Your task to perform on an android device: toggle airplane mode Image 0: 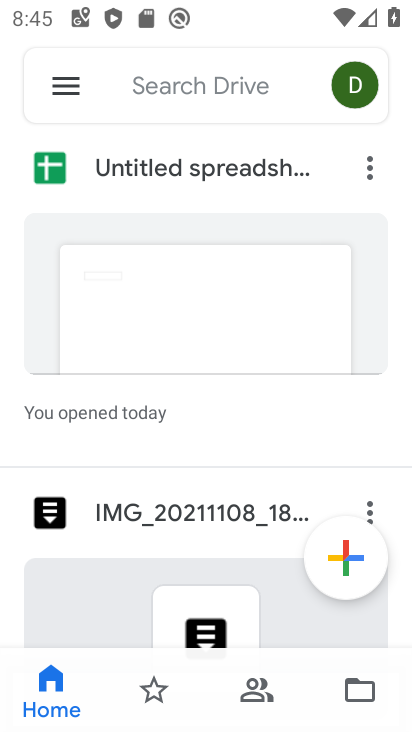
Step 0: press home button
Your task to perform on an android device: toggle airplane mode Image 1: 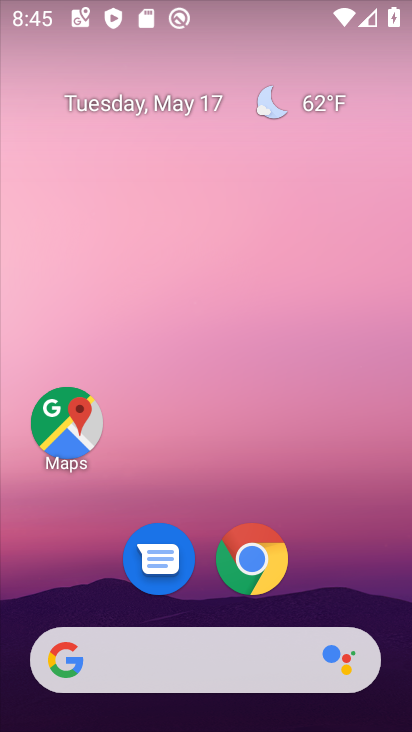
Step 1: drag from (226, 654) to (197, 19)
Your task to perform on an android device: toggle airplane mode Image 2: 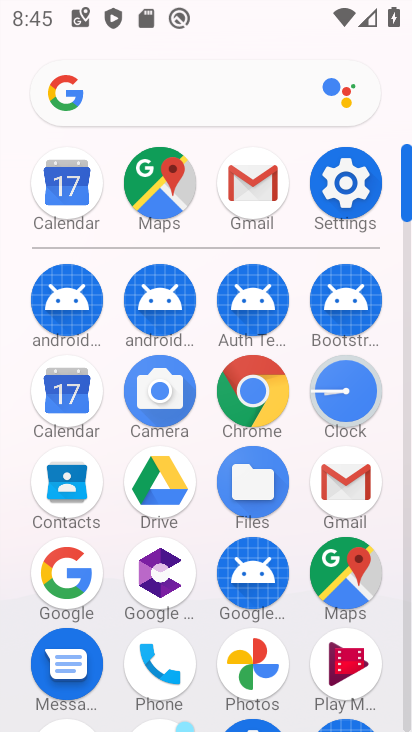
Step 2: click (347, 205)
Your task to perform on an android device: toggle airplane mode Image 3: 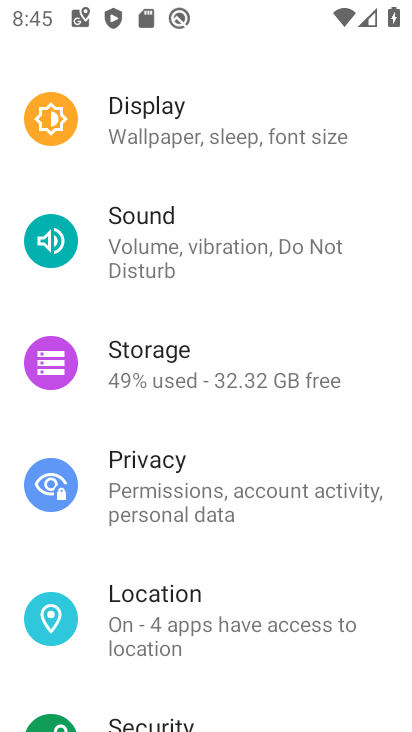
Step 3: drag from (163, 121) to (111, 645)
Your task to perform on an android device: toggle airplane mode Image 4: 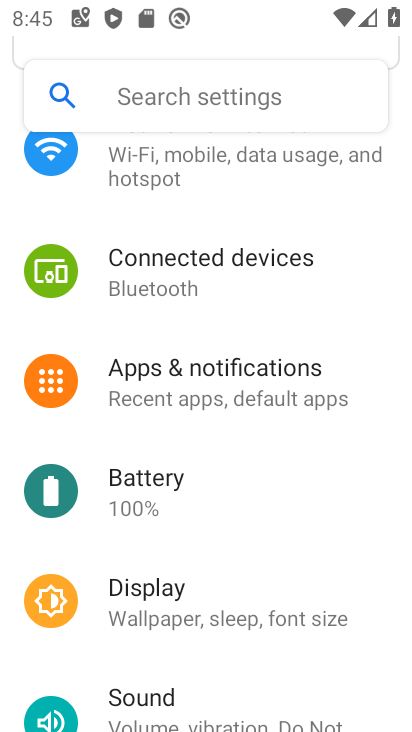
Step 4: click (202, 156)
Your task to perform on an android device: toggle airplane mode Image 5: 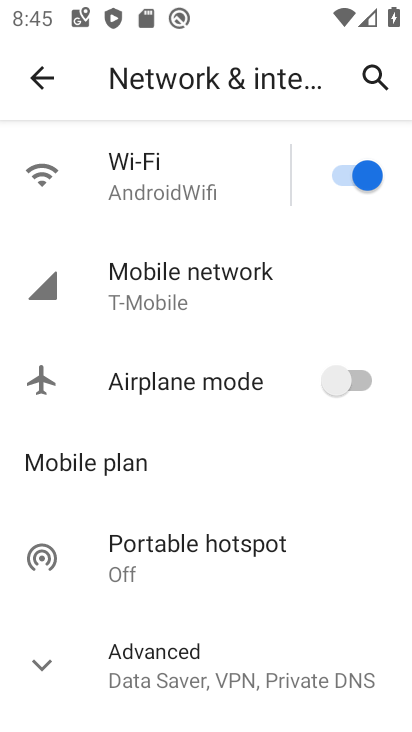
Step 5: click (312, 362)
Your task to perform on an android device: toggle airplane mode Image 6: 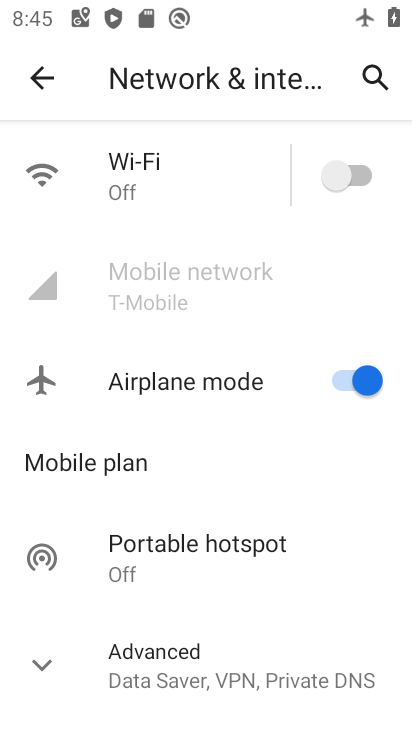
Step 6: task complete